Your task to perform on an android device: toggle notifications settings in the gmail app Image 0: 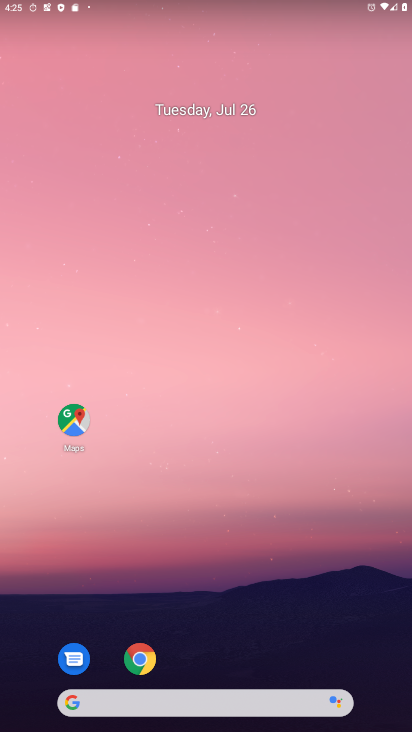
Step 0: press home button
Your task to perform on an android device: toggle notifications settings in the gmail app Image 1: 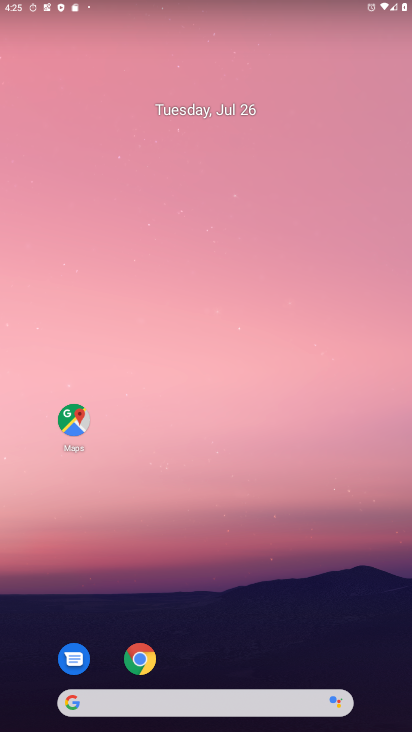
Step 1: drag from (267, 650) to (204, 4)
Your task to perform on an android device: toggle notifications settings in the gmail app Image 2: 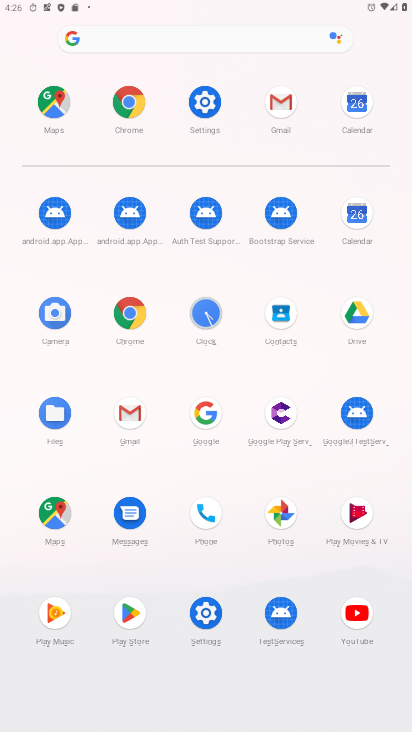
Step 2: click (282, 105)
Your task to perform on an android device: toggle notifications settings in the gmail app Image 3: 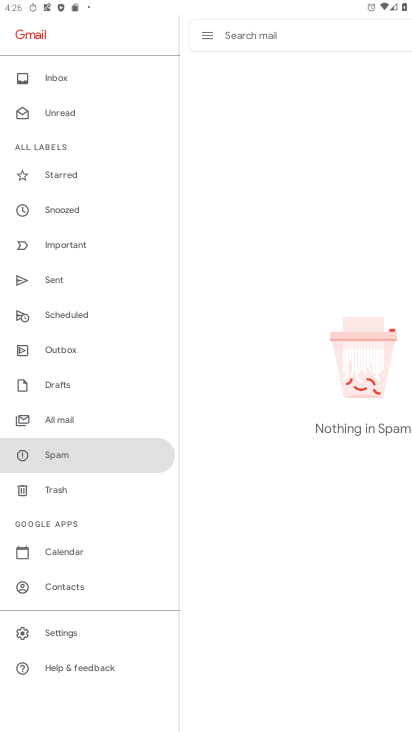
Step 3: click (56, 632)
Your task to perform on an android device: toggle notifications settings in the gmail app Image 4: 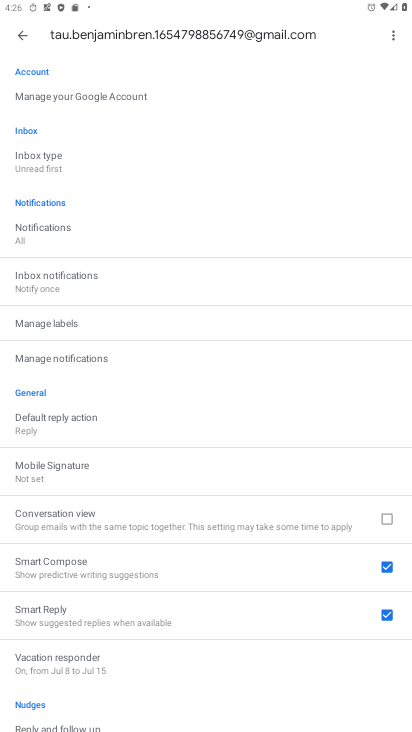
Step 4: click (62, 359)
Your task to perform on an android device: toggle notifications settings in the gmail app Image 5: 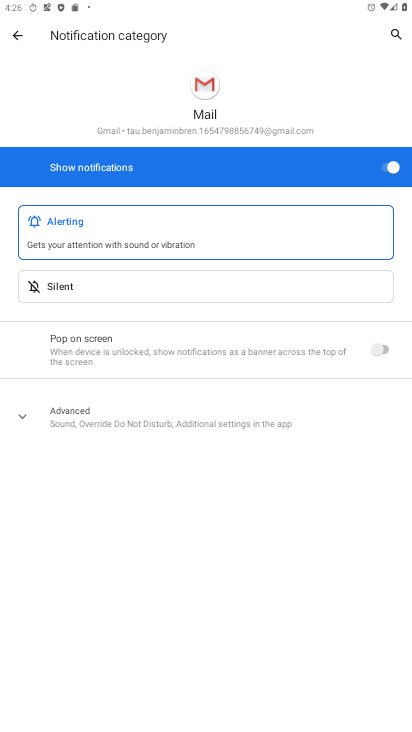
Step 5: click (393, 171)
Your task to perform on an android device: toggle notifications settings in the gmail app Image 6: 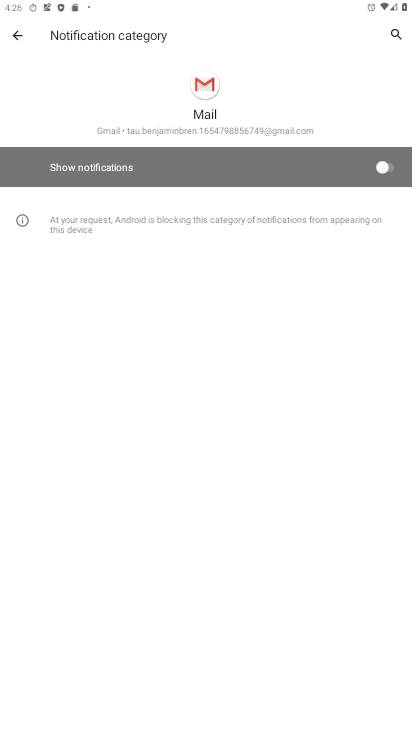
Step 6: task complete